Your task to perform on an android device: change the clock style Image 0: 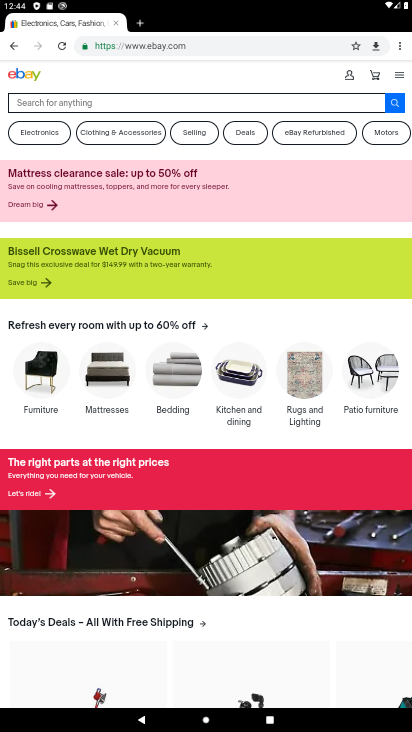
Step 0: press home button
Your task to perform on an android device: change the clock style Image 1: 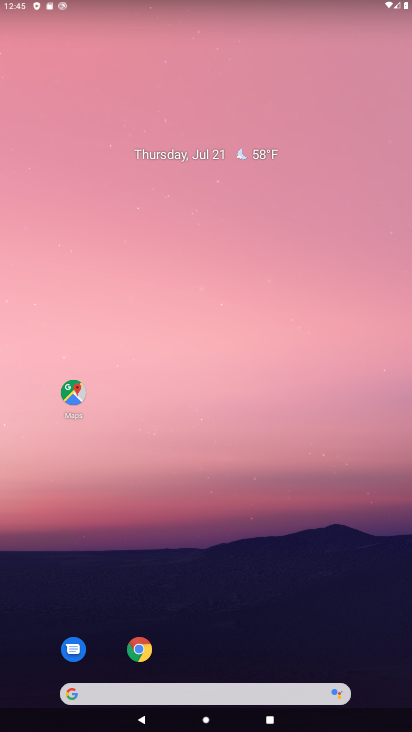
Step 1: drag from (245, 667) to (208, 254)
Your task to perform on an android device: change the clock style Image 2: 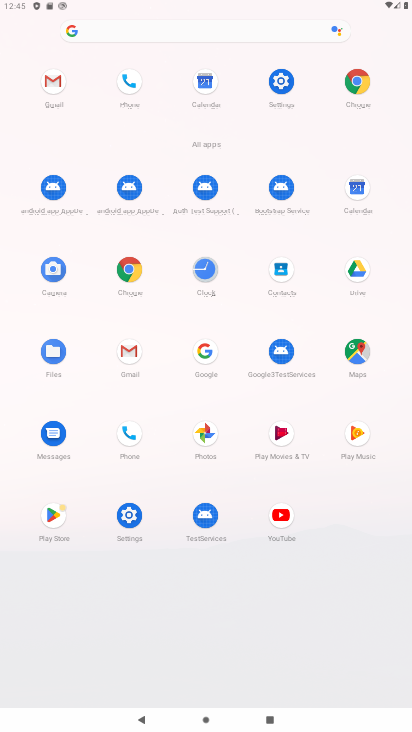
Step 2: click (209, 270)
Your task to perform on an android device: change the clock style Image 3: 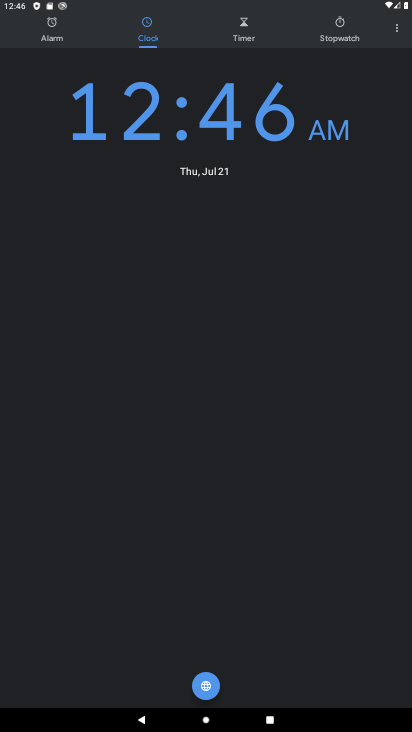
Step 3: task complete